Your task to perform on an android device: Open Amazon Image 0: 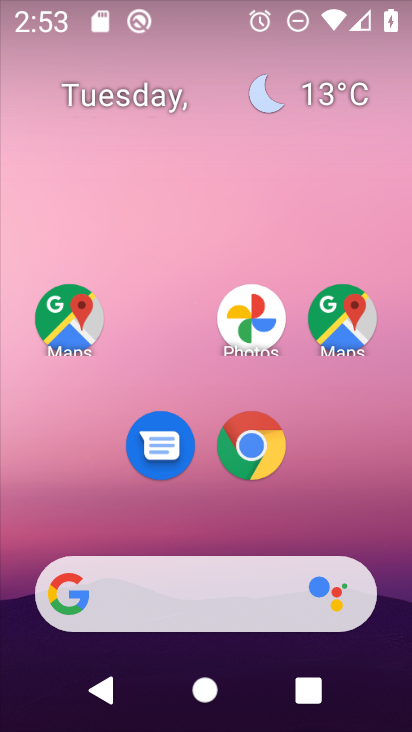
Step 0: drag from (379, 530) to (366, 244)
Your task to perform on an android device: Open Amazon Image 1: 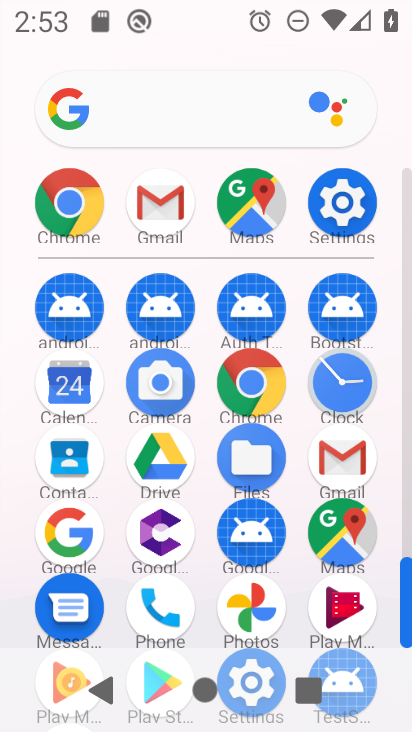
Step 1: click (257, 403)
Your task to perform on an android device: Open Amazon Image 2: 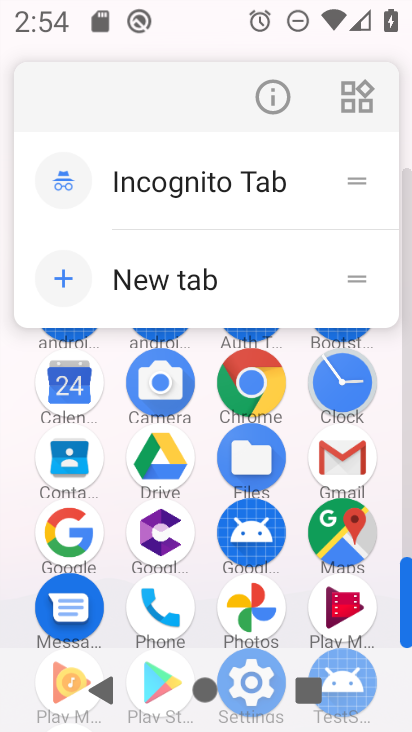
Step 2: click (258, 404)
Your task to perform on an android device: Open Amazon Image 3: 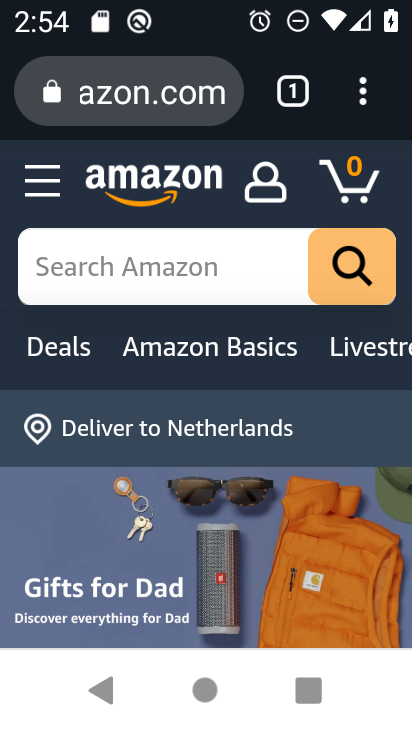
Step 3: task complete